Your task to perform on an android device: Open network settings Image 0: 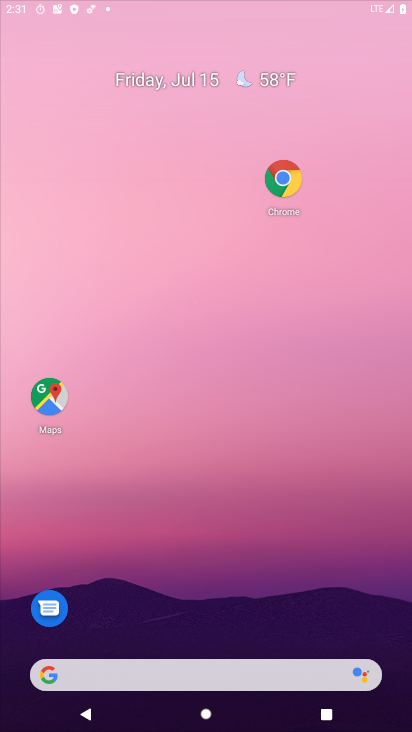
Step 0: drag from (206, 640) to (266, 80)
Your task to perform on an android device: Open network settings Image 1: 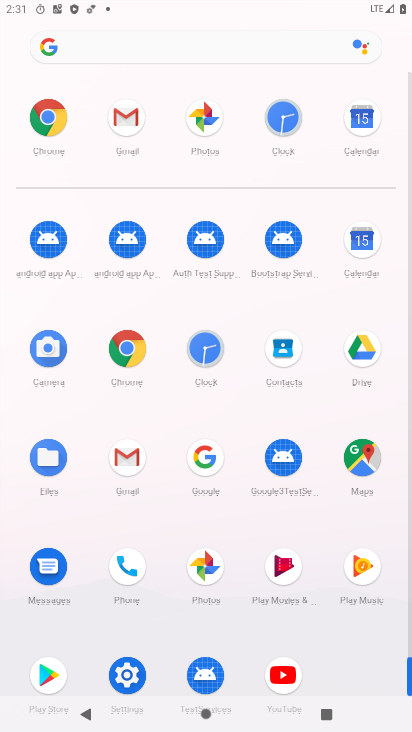
Step 1: click (120, 671)
Your task to perform on an android device: Open network settings Image 2: 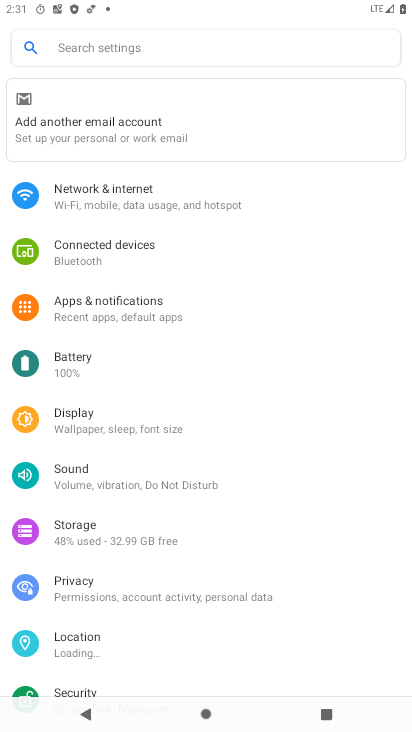
Step 2: click (111, 197)
Your task to perform on an android device: Open network settings Image 3: 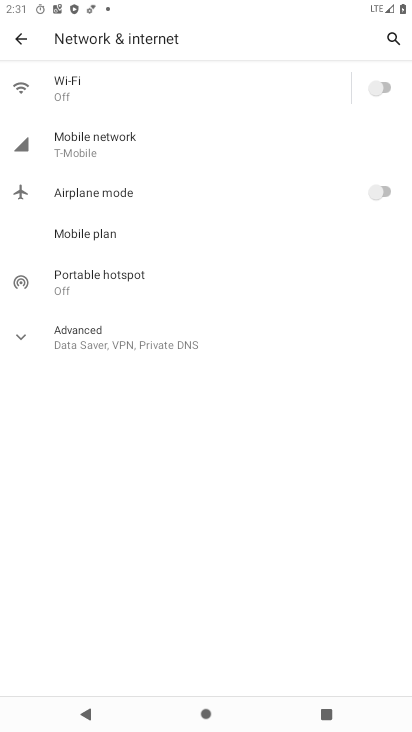
Step 3: task complete